Your task to perform on an android device: Empty the shopping cart on newegg.com. Add "apple airpods pro" to the cart on newegg.com, then select checkout. Image 0: 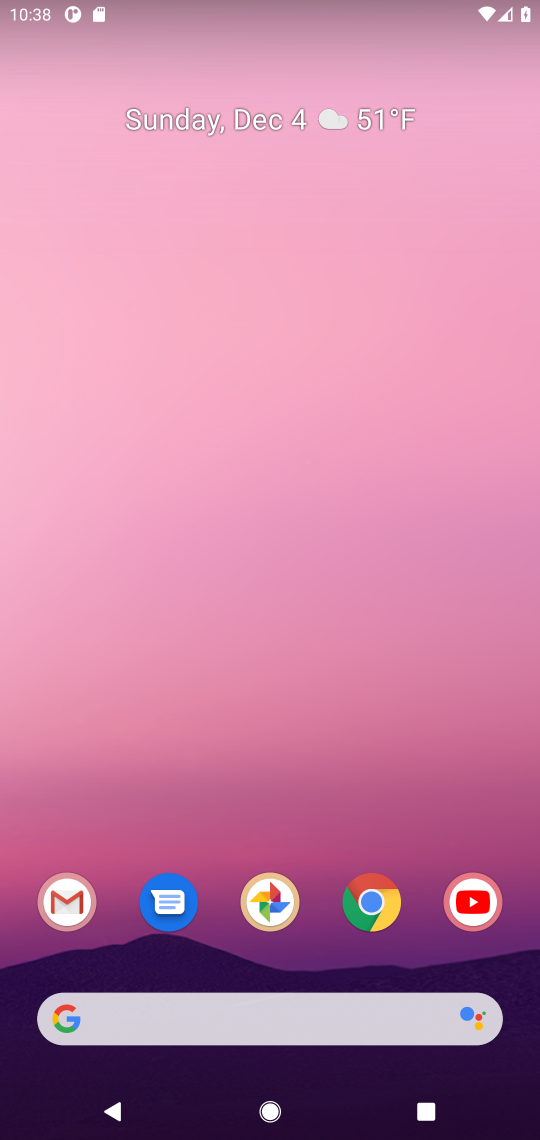
Step 0: click (369, 911)
Your task to perform on an android device: Empty the shopping cart on newegg.com. Add "apple airpods pro" to the cart on newegg.com, then select checkout. Image 1: 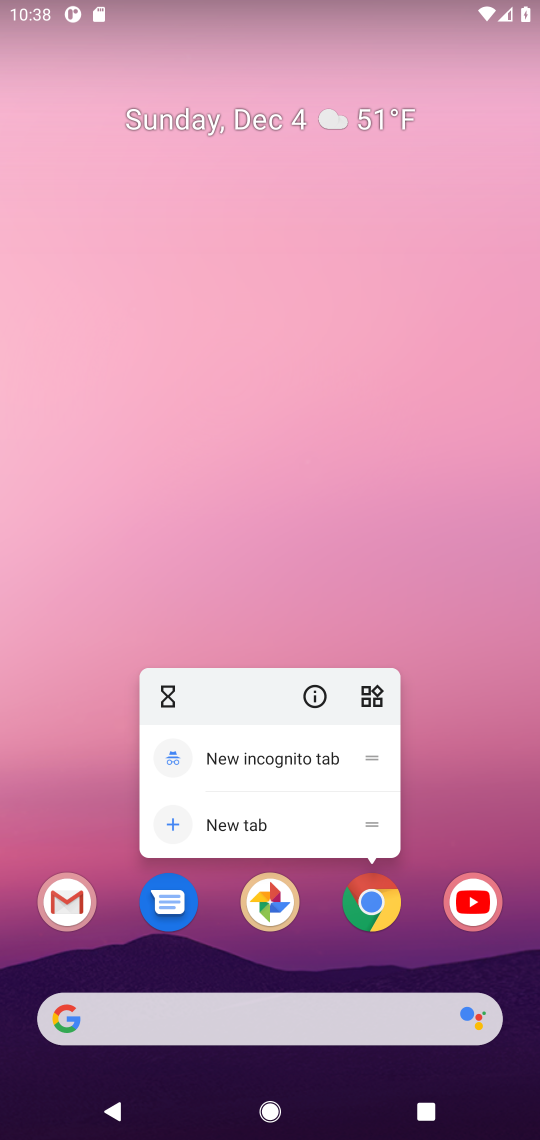
Step 1: click (369, 911)
Your task to perform on an android device: Empty the shopping cart on newegg.com. Add "apple airpods pro" to the cart on newegg.com, then select checkout. Image 2: 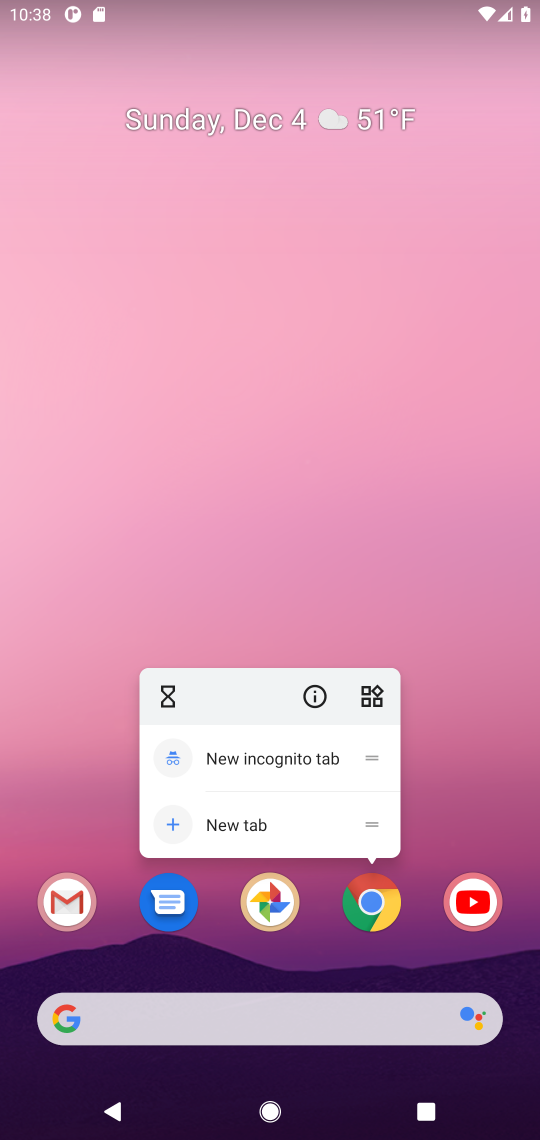
Step 2: click (376, 905)
Your task to perform on an android device: Empty the shopping cart on newegg.com. Add "apple airpods pro" to the cart on newegg.com, then select checkout. Image 3: 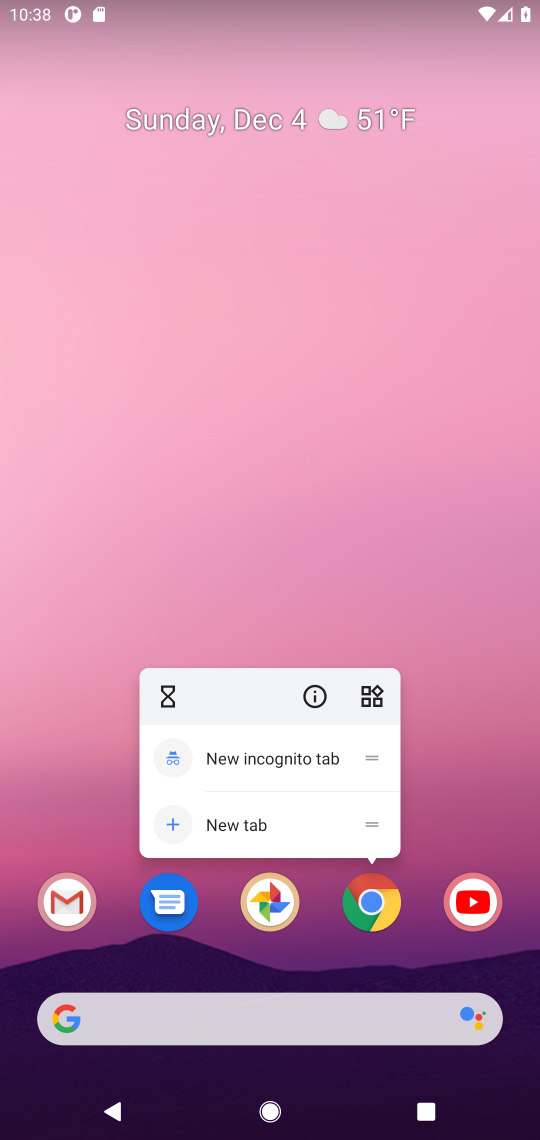
Step 3: click (373, 901)
Your task to perform on an android device: Empty the shopping cart on newegg.com. Add "apple airpods pro" to the cart on newegg.com, then select checkout. Image 4: 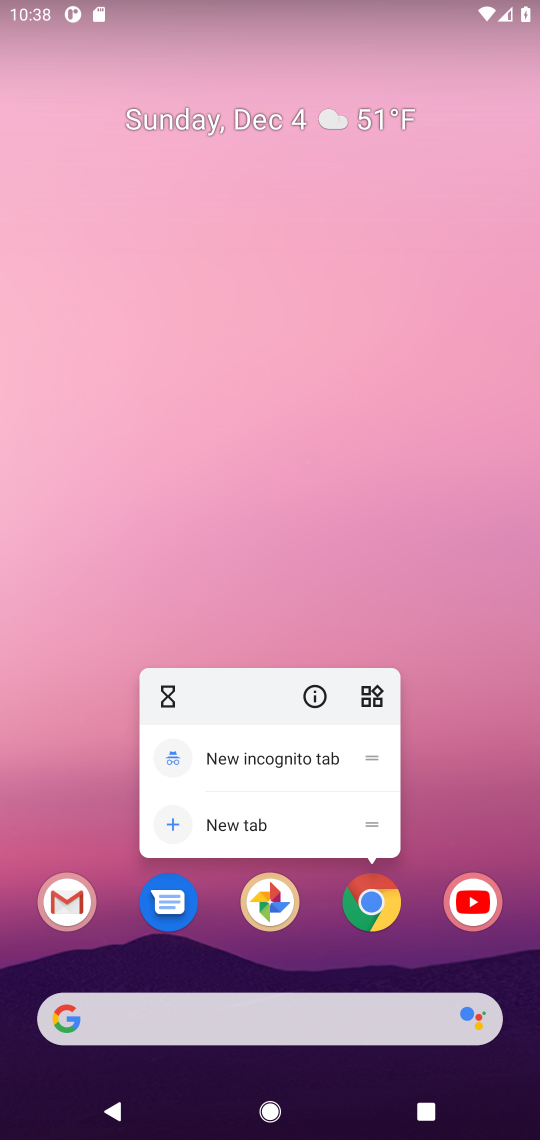
Step 4: click (373, 901)
Your task to perform on an android device: Empty the shopping cart on newegg.com. Add "apple airpods pro" to the cart on newegg.com, then select checkout. Image 5: 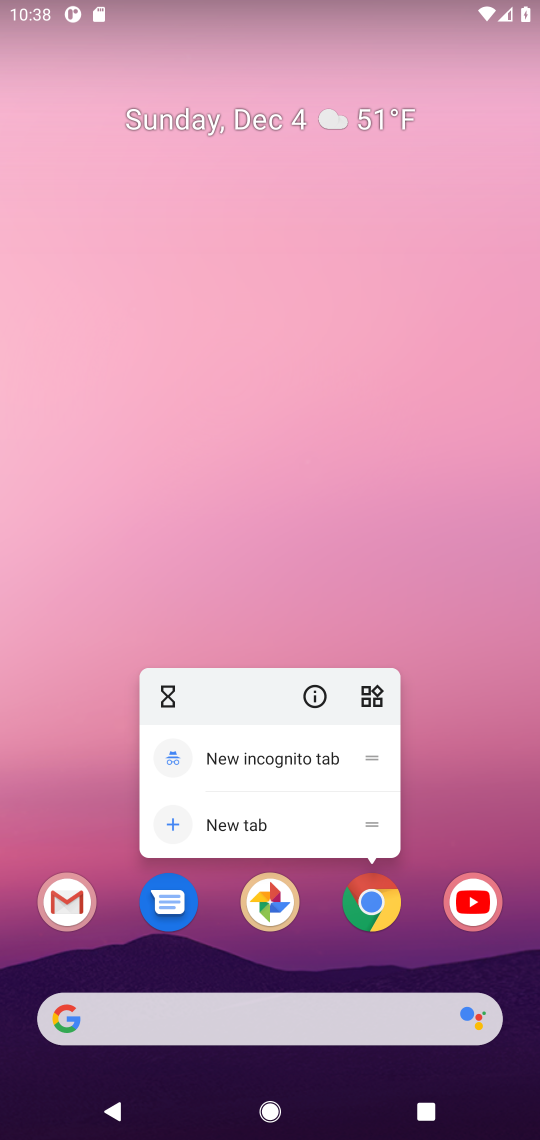
Step 5: click (373, 901)
Your task to perform on an android device: Empty the shopping cart on newegg.com. Add "apple airpods pro" to the cart on newegg.com, then select checkout. Image 6: 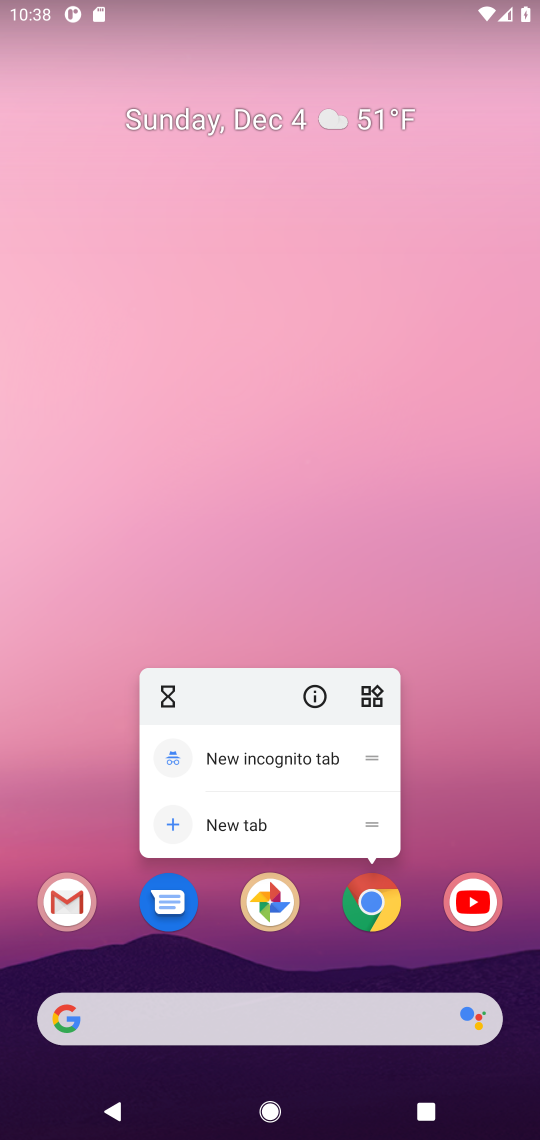
Step 6: click (373, 901)
Your task to perform on an android device: Empty the shopping cart on newegg.com. Add "apple airpods pro" to the cart on newegg.com, then select checkout. Image 7: 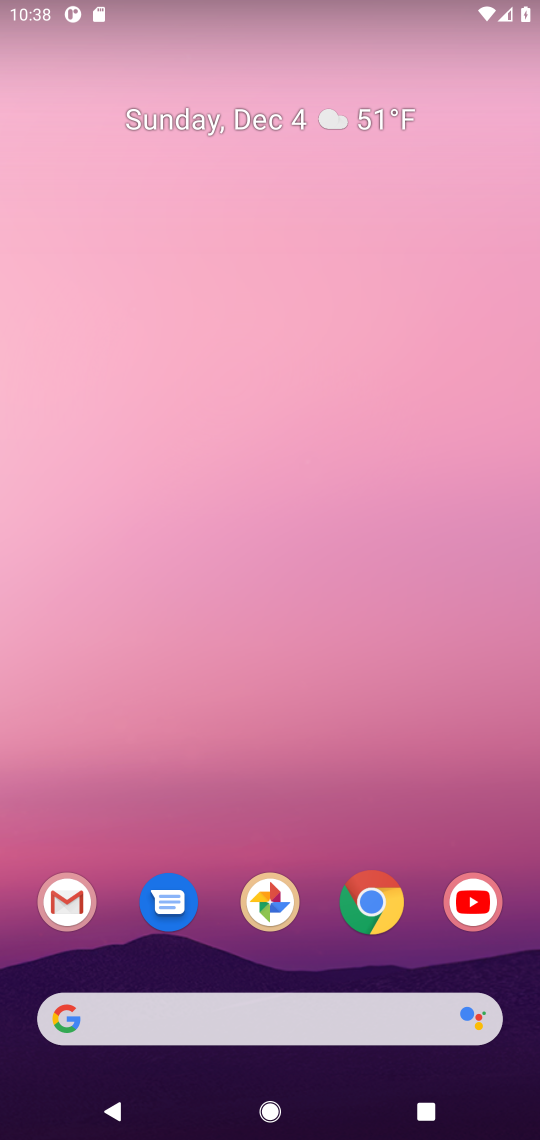
Step 7: click (373, 901)
Your task to perform on an android device: Empty the shopping cart on newegg.com. Add "apple airpods pro" to the cart on newegg.com, then select checkout. Image 8: 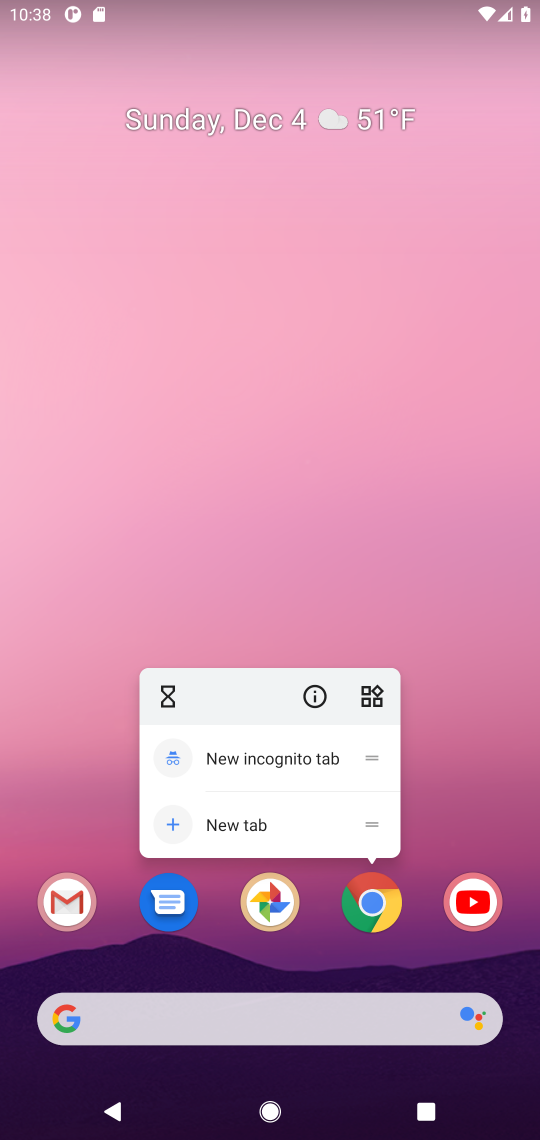
Step 8: click (373, 901)
Your task to perform on an android device: Empty the shopping cart on newegg.com. Add "apple airpods pro" to the cart on newegg.com, then select checkout. Image 9: 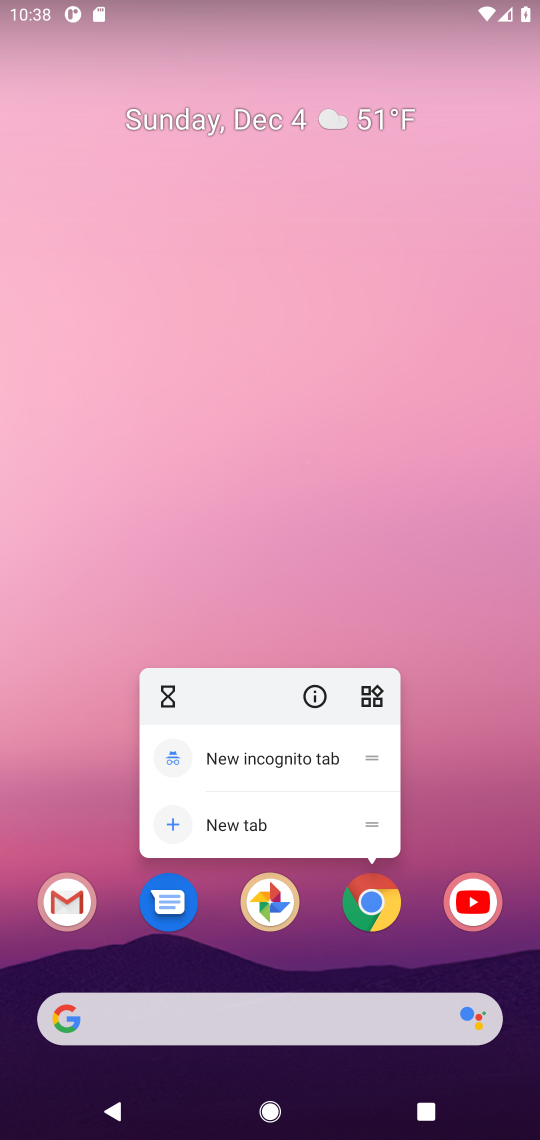
Step 9: click (383, 922)
Your task to perform on an android device: Empty the shopping cart on newegg.com. Add "apple airpods pro" to the cart on newegg.com, then select checkout. Image 10: 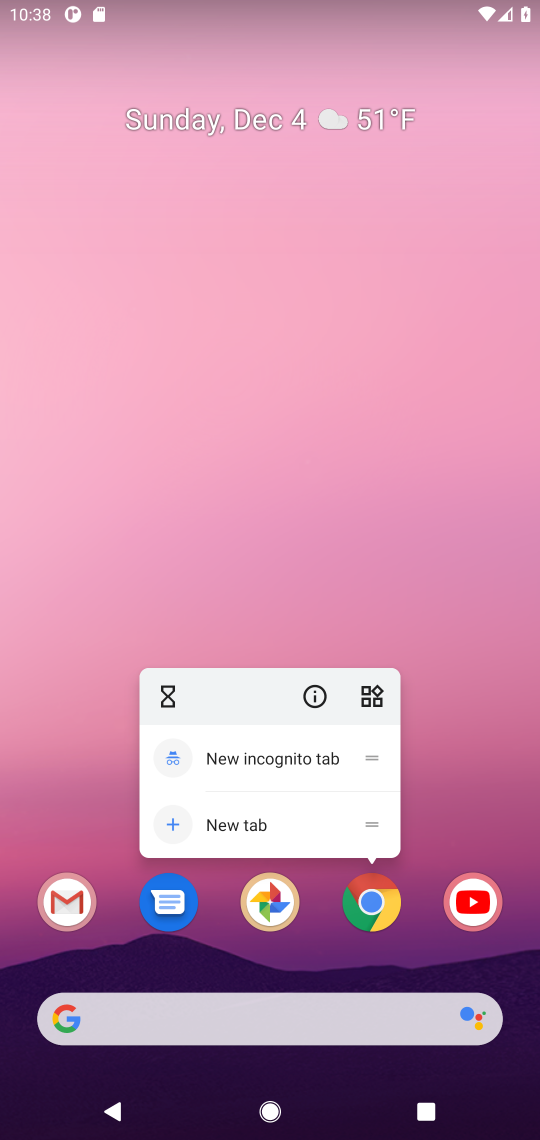
Step 10: click (379, 897)
Your task to perform on an android device: Empty the shopping cart on newegg.com. Add "apple airpods pro" to the cart on newegg.com, then select checkout. Image 11: 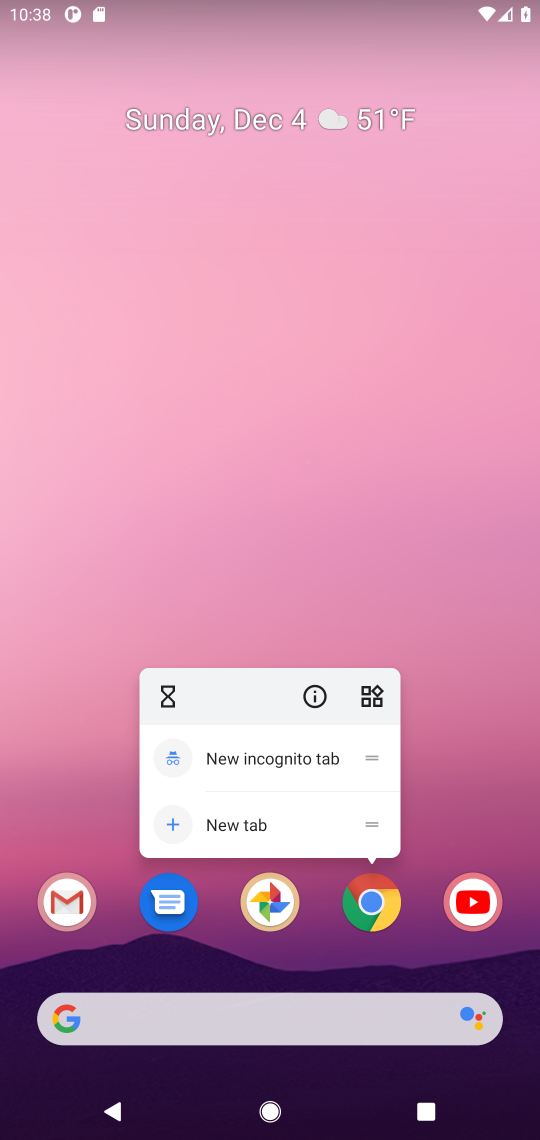
Step 11: click (379, 897)
Your task to perform on an android device: Empty the shopping cart on newegg.com. Add "apple airpods pro" to the cart on newegg.com, then select checkout. Image 12: 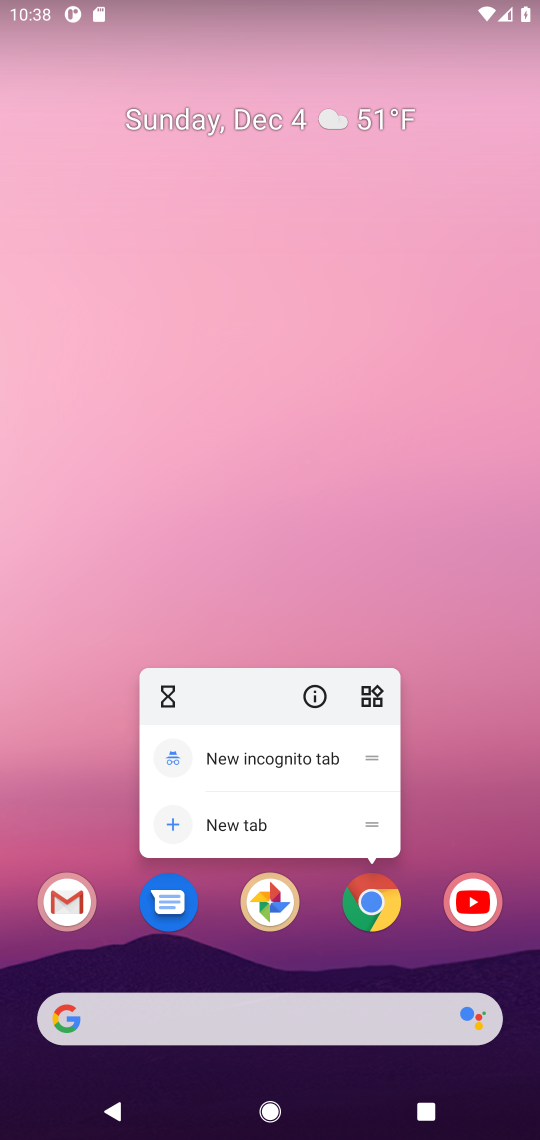
Step 12: click (379, 897)
Your task to perform on an android device: Empty the shopping cart on newegg.com. Add "apple airpods pro" to the cart on newegg.com, then select checkout. Image 13: 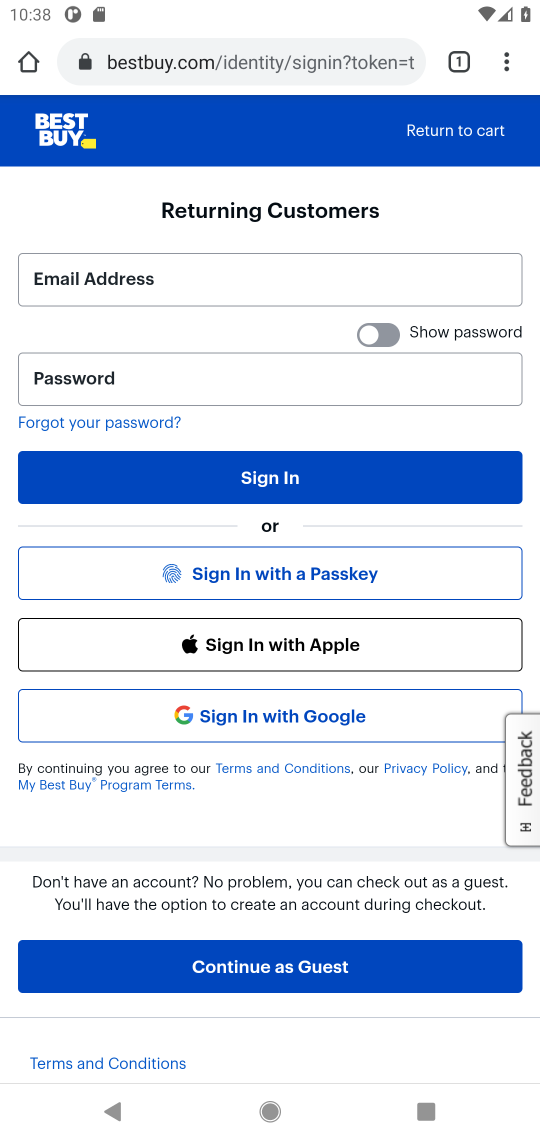
Step 13: click (187, 62)
Your task to perform on an android device: Empty the shopping cart on newegg.com. Add "apple airpods pro" to the cart on newegg.com, then select checkout. Image 14: 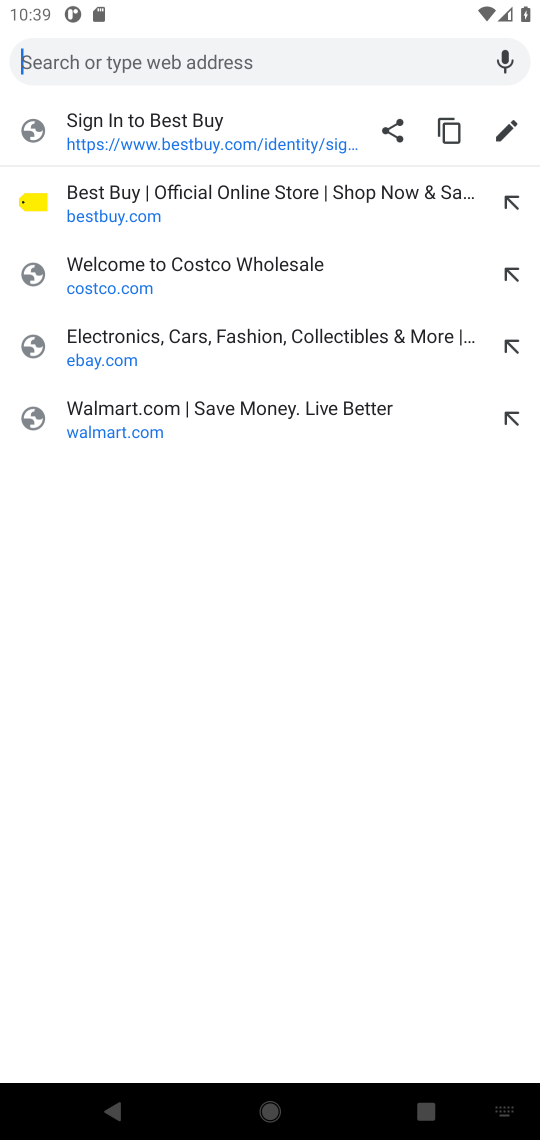
Step 14: type "newegg"
Your task to perform on an android device: Empty the shopping cart on newegg.com. Add "apple airpods pro" to the cart on newegg.com, then select checkout. Image 15: 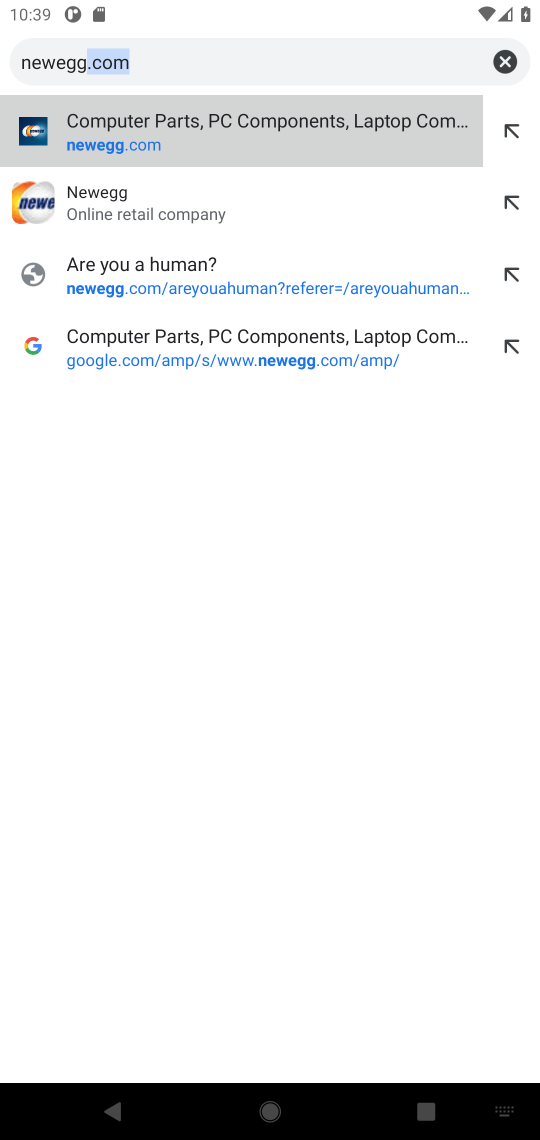
Step 15: click (90, 187)
Your task to perform on an android device: Empty the shopping cart on newegg.com. Add "apple airpods pro" to the cart on newegg.com, then select checkout. Image 16: 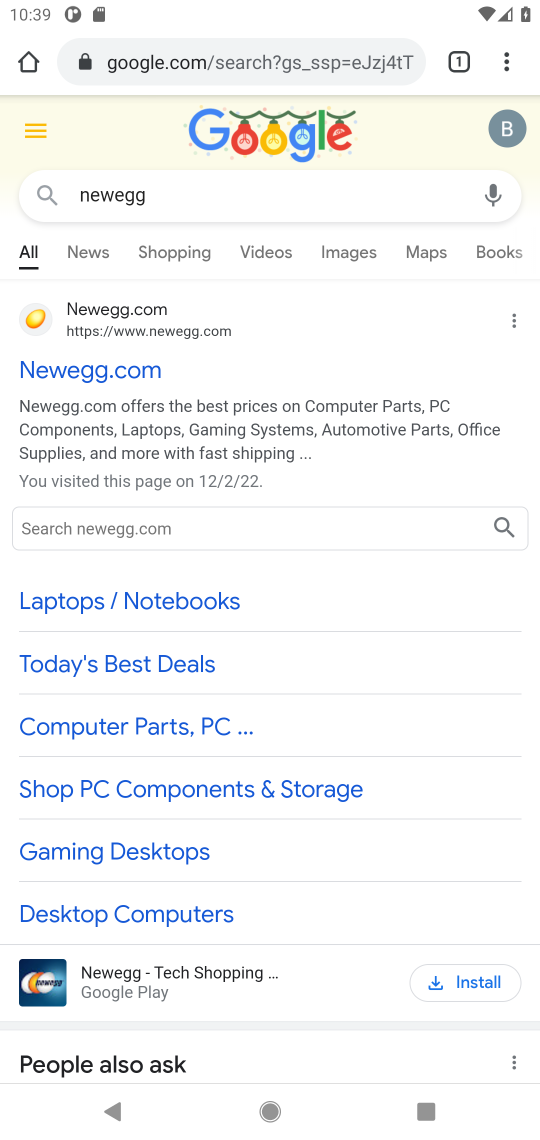
Step 16: click (73, 376)
Your task to perform on an android device: Empty the shopping cart on newegg.com. Add "apple airpods pro" to the cart on newegg.com, then select checkout. Image 17: 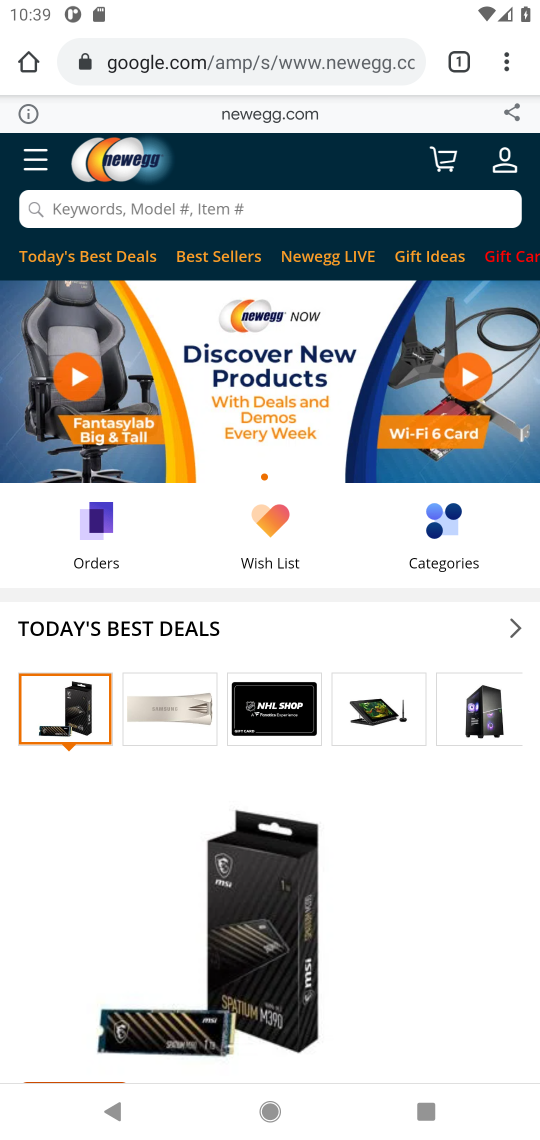
Step 17: click (444, 175)
Your task to perform on an android device: Empty the shopping cart on newegg.com. Add "apple airpods pro" to the cart on newegg.com, then select checkout. Image 18: 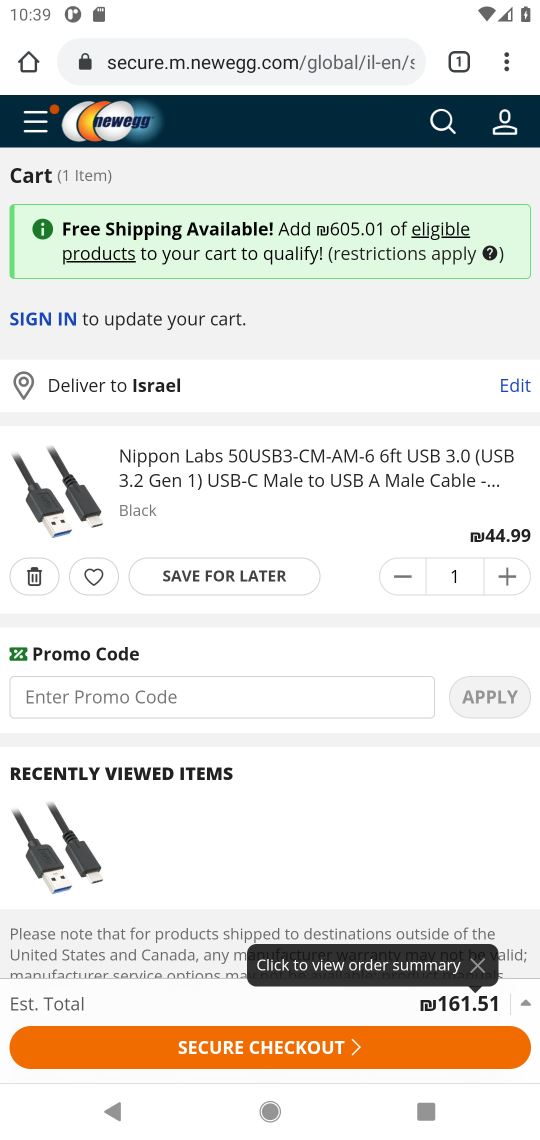
Step 18: click (23, 575)
Your task to perform on an android device: Empty the shopping cart on newegg.com. Add "apple airpods pro" to the cart on newegg.com, then select checkout. Image 19: 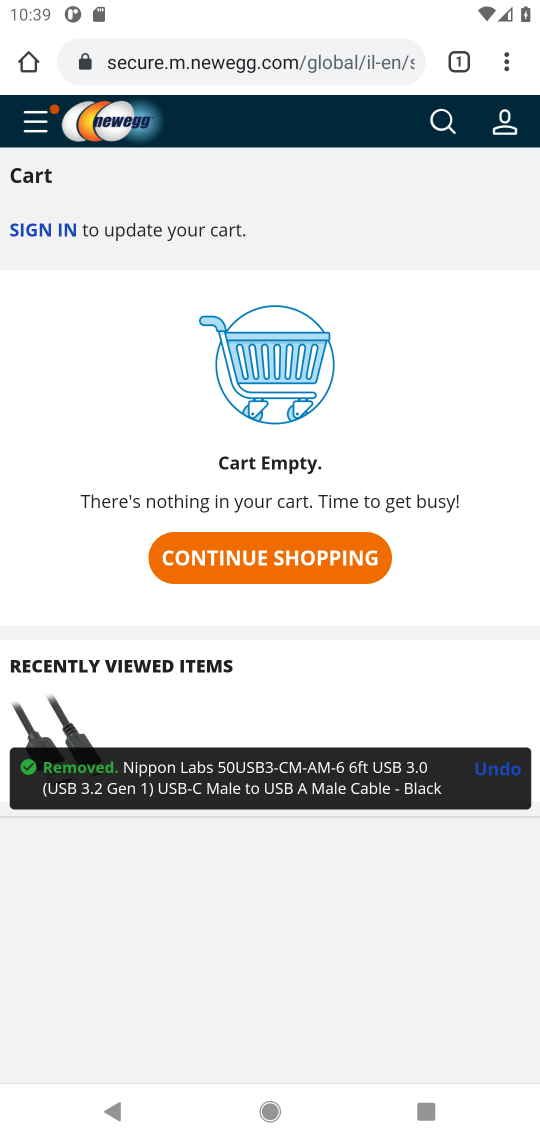
Step 19: click (440, 114)
Your task to perform on an android device: Empty the shopping cart on newegg.com. Add "apple airpods pro" to the cart on newegg.com, then select checkout. Image 20: 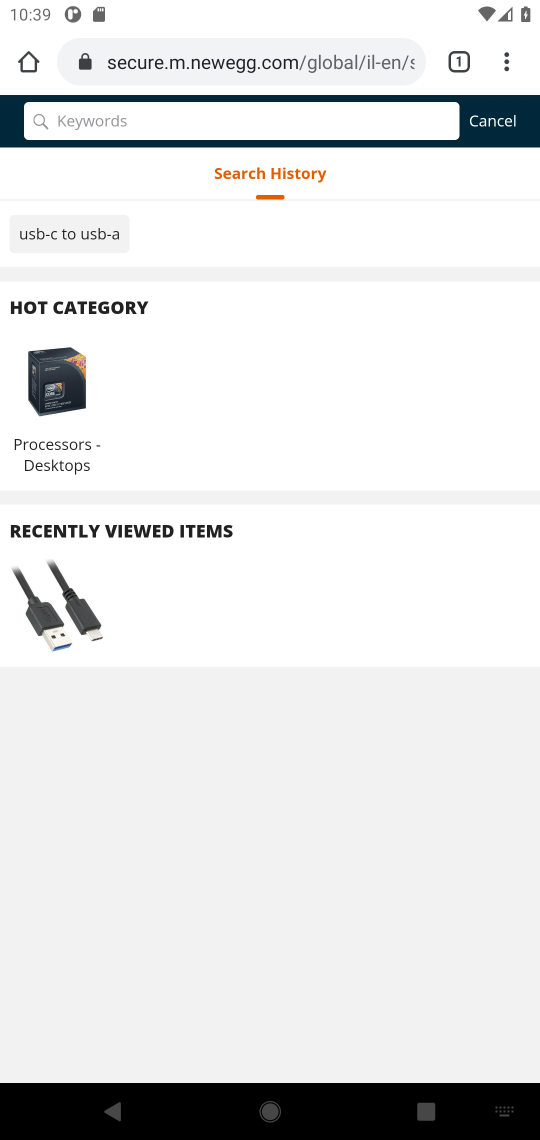
Step 20: type "apple airpods pro"
Your task to perform on an android device: Empty the shopping cart on newegg.com. Add "apple airpods pro" to the cart on newegg.com, then select checkout. Image 21: 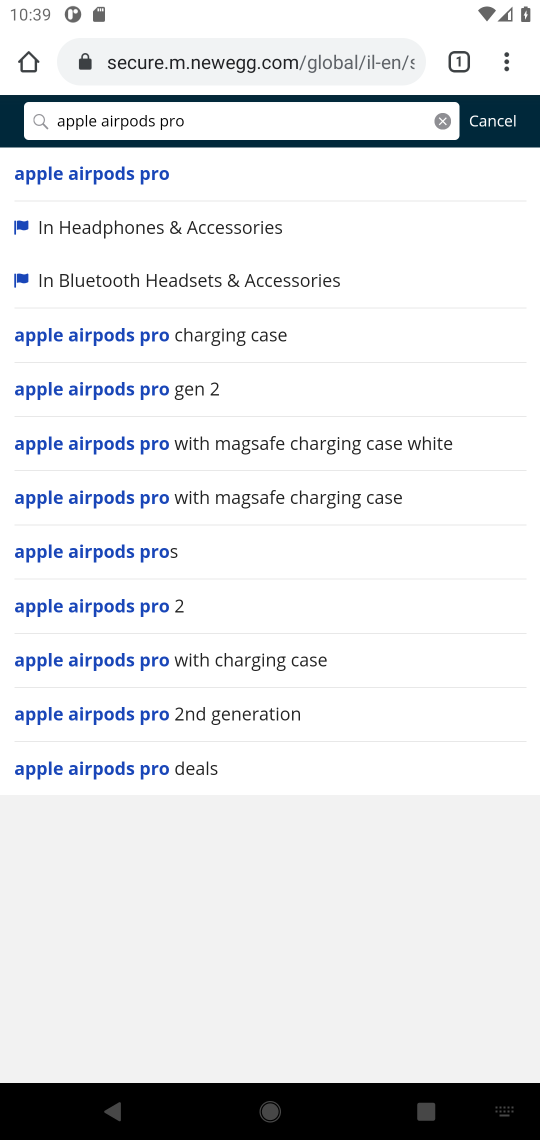
Step 21: click (143, 175)
Your task to perform on an android device: Empty the shopping cart on newegg.com. Add "apple airpods pro" to the cart on newegg.com, then select checkout. Image 22: 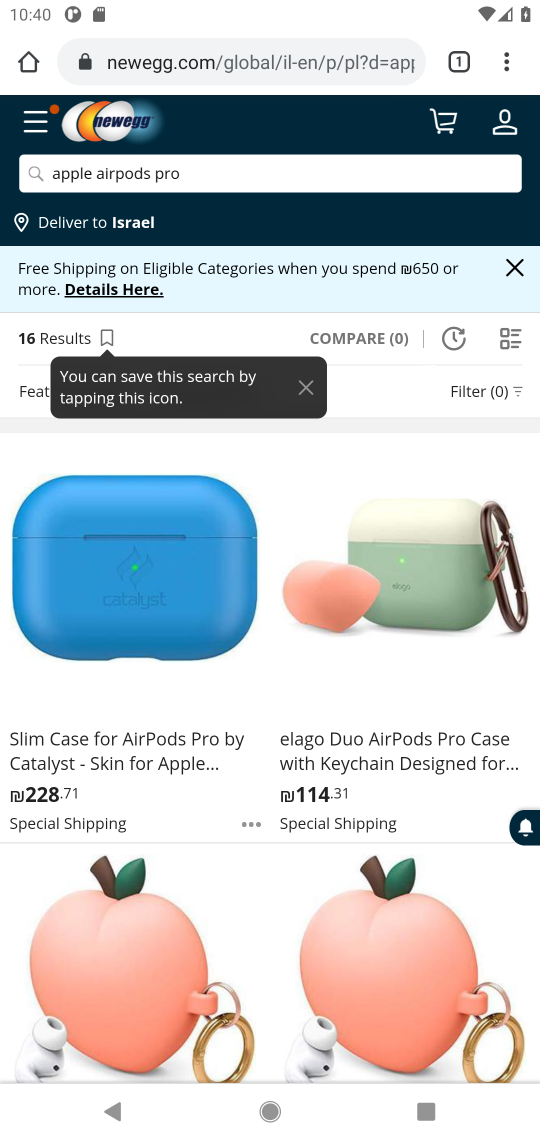
Step 22: task complete